Your task to perform on an android device: toggle translation in the chrome app Image 0: 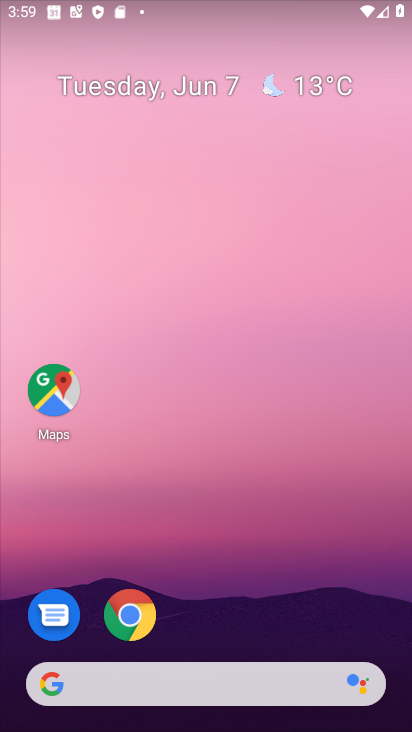
Step 0: drag from (203, 501) to (81, 7)
Your task to perform on an android device: toggle translation in the chrome app Image 1: 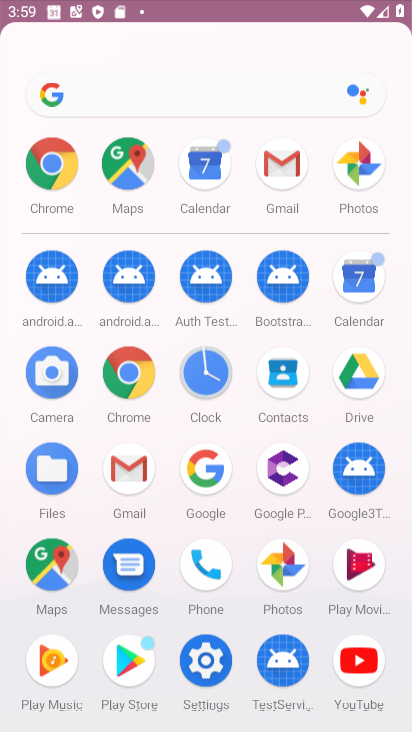
Step 1: drag from (204, 535) to (162, 182)
Your task to perform on an android device: toggle translation in the chrome app Image 2: 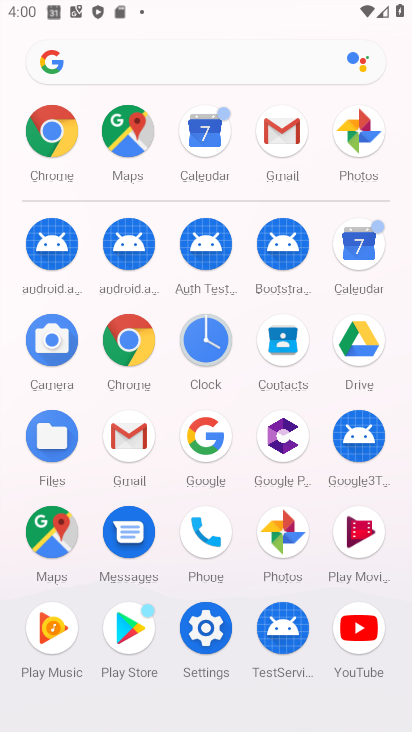
Step 2: click (121, 343)
Your task to perform on an android device: toggle translation in the chrome app Image 3: 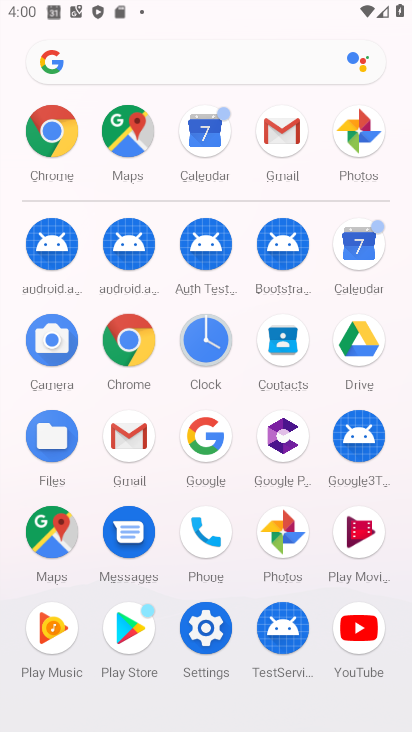
Step 3: click (122, 343)
Your task to perform on an android device: toggle translation in the chrome app Image 4: 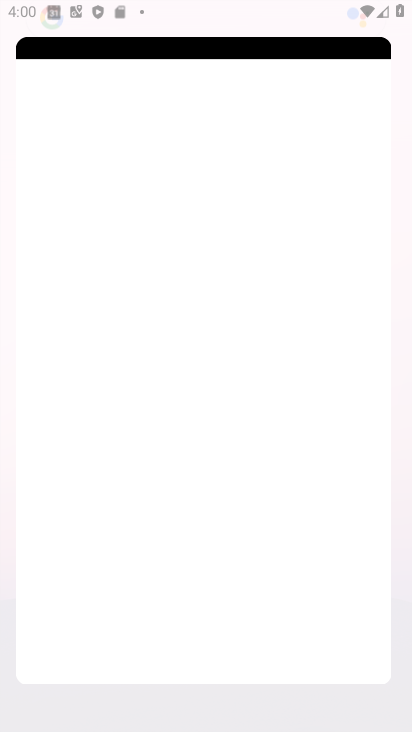
Step 4: click (120, 342)
Your task to perform on an android device: toggle translation in the chrome app Image 5: 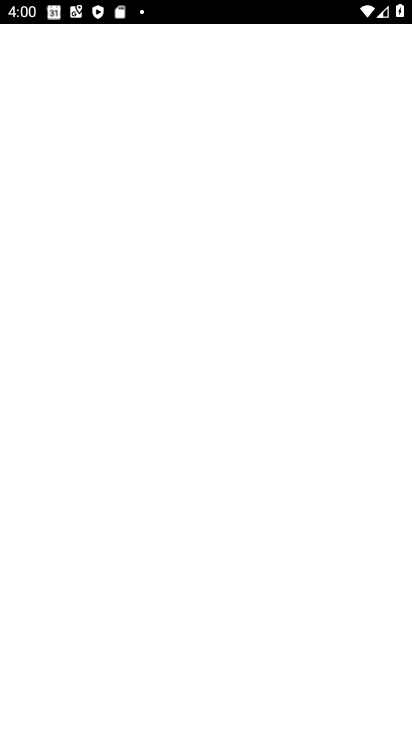
Step 5: click (120, 341)
Your task to perform on an android device: toggle translation in the chrome app Image 6: 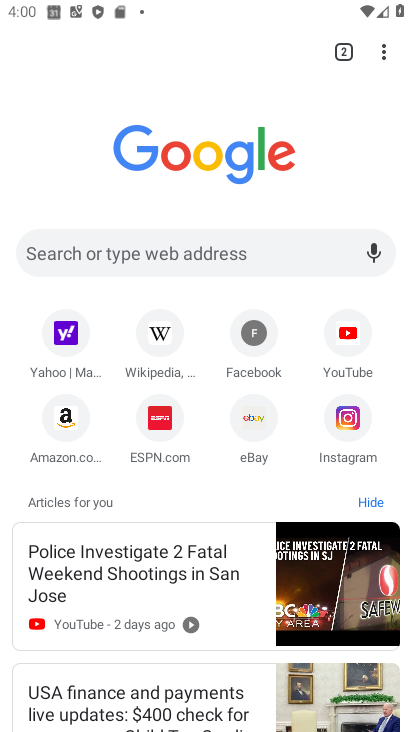
Step 6: click (385, 57)
Your task to perform on an android device: toggle translation in the chrome app Image 7: 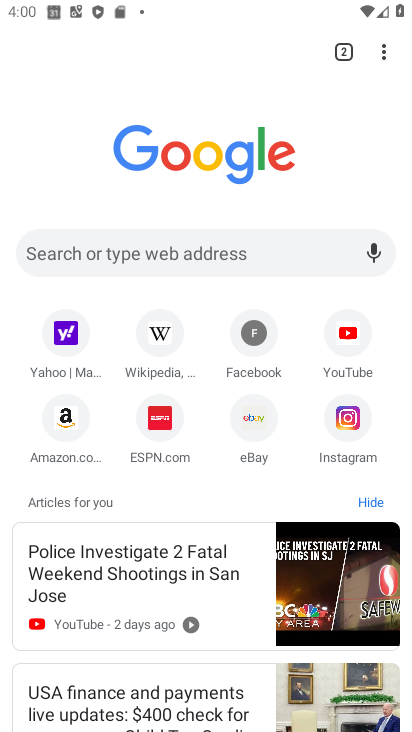
Step 7: drag from (375, 57) to (192, 488)
Your task to perform on an android device: toggle translation in the chrome app Image 8: 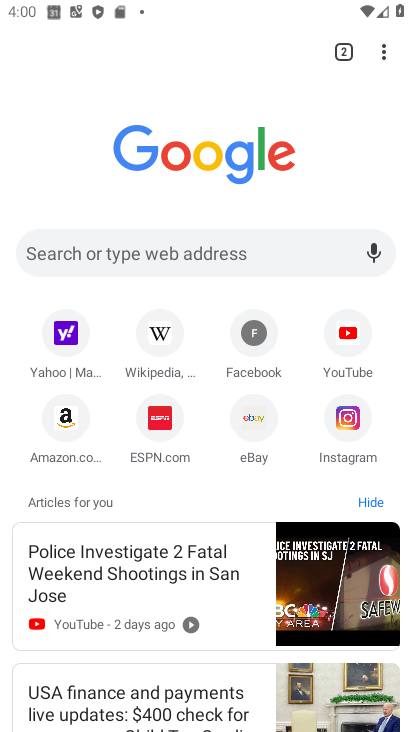
Step 8: click (192, 489)
Your task to perform on an android device: toggle translation in the chrome app Image 9: 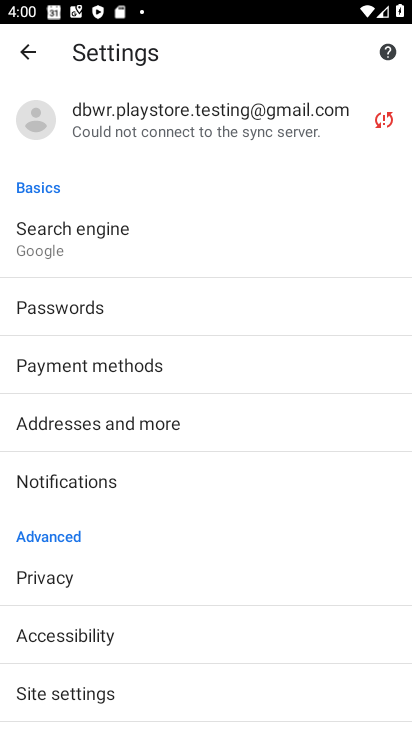
Step 9: drag from (69, 433) to (72, 262)
Your task to perform on an android device: toggle translation in the chrome app Image 10: 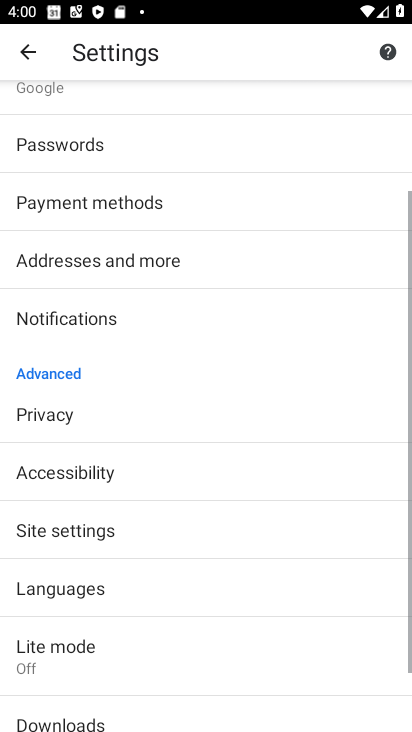
Step 10: drag from (87, 534) to (36, 243)
Your task to perform on an android device: toggle translation in the chrome app Image 11: 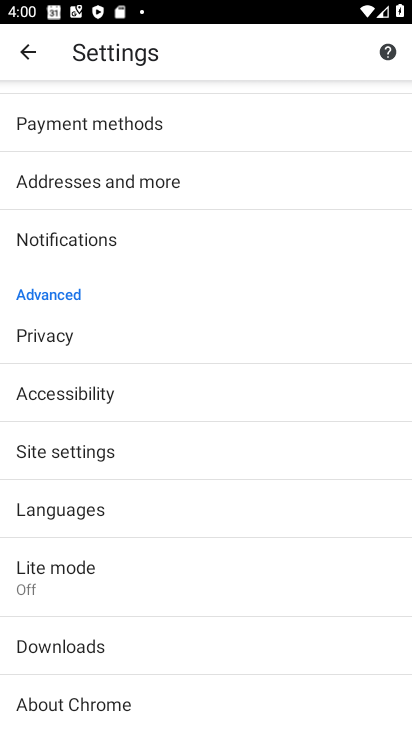
Step 11: click (43, 509)
Your task to perform on an android device: toggle translation in the chrome app Image 12: 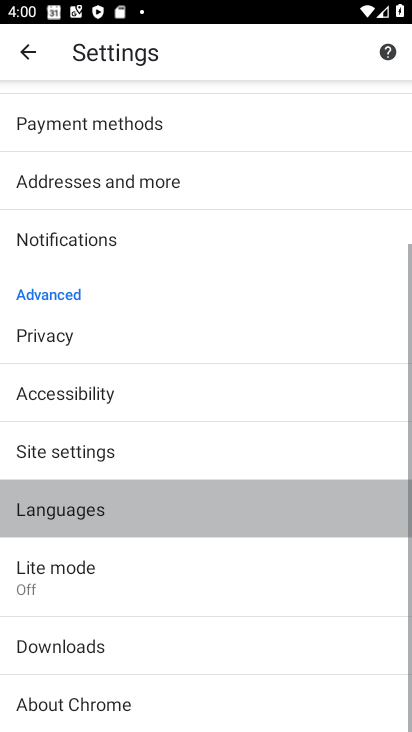
Step 12: click (42, 506)
Your task to perform on an android device: toggle translation in the chrome app Image 13: 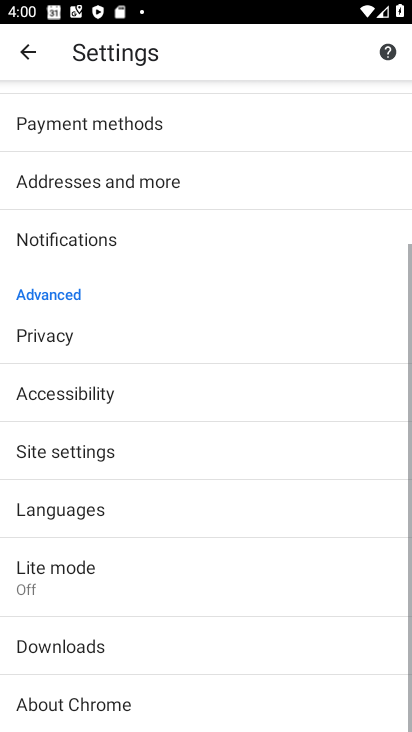
Step 13: click (41, 506)
Your task to perform on an android device: toggle translation in the chrome app Image 14: 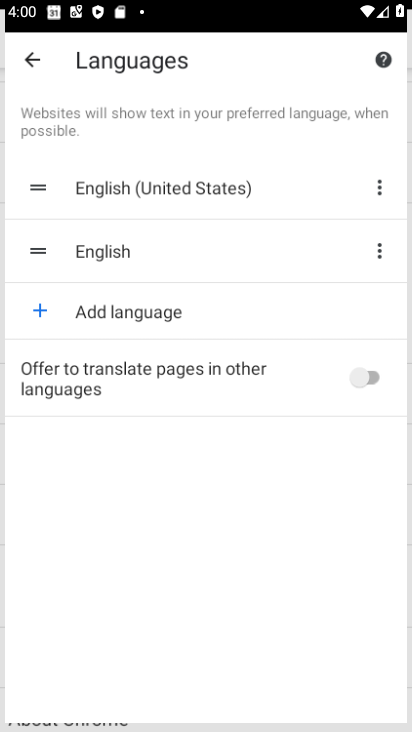
Step 14: click (41, 506)
Your task to perform on an android device: toggle translation in the chrome app Image 15: 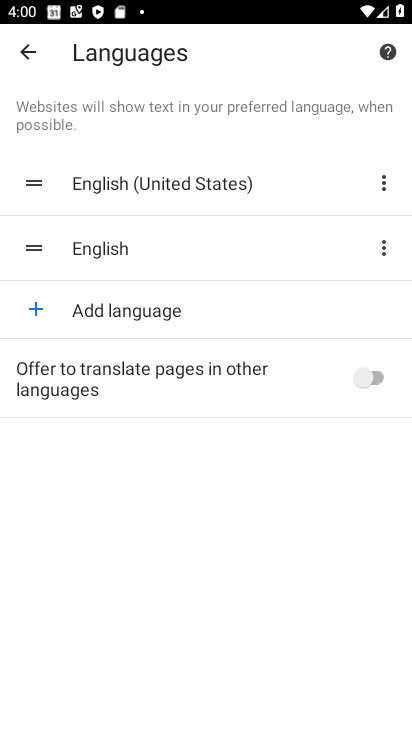
Step 15: click (369, 372)
Your task to perform on an android device: toggle translation in the chrome app Image 16: 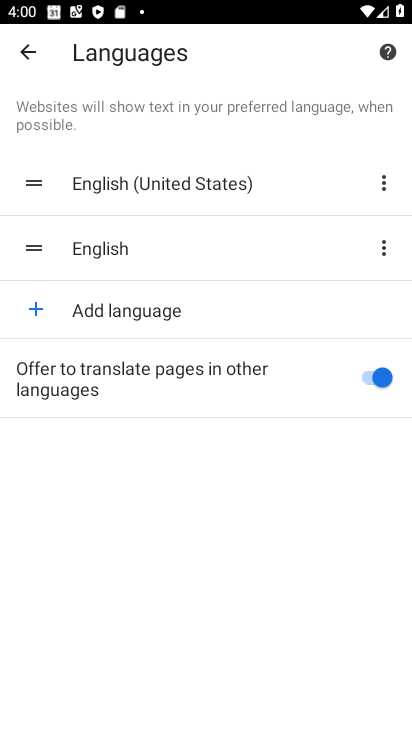
Step 16: task complete